Your task to perform on an android device: Go to location settings Image 0: 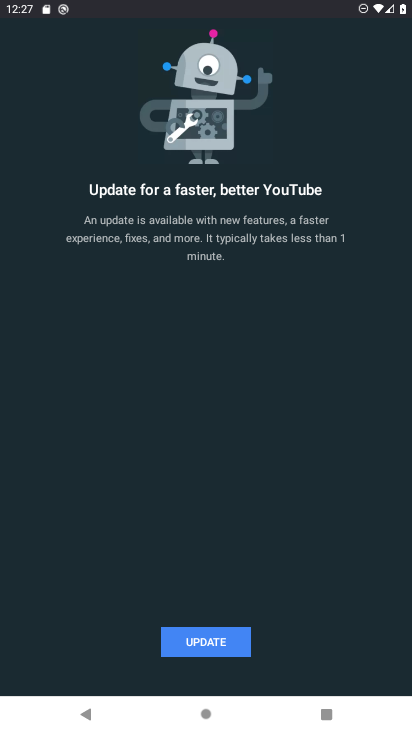
Step 0: press home button
Your task to perform on an android device: Go to location settings Image 1: 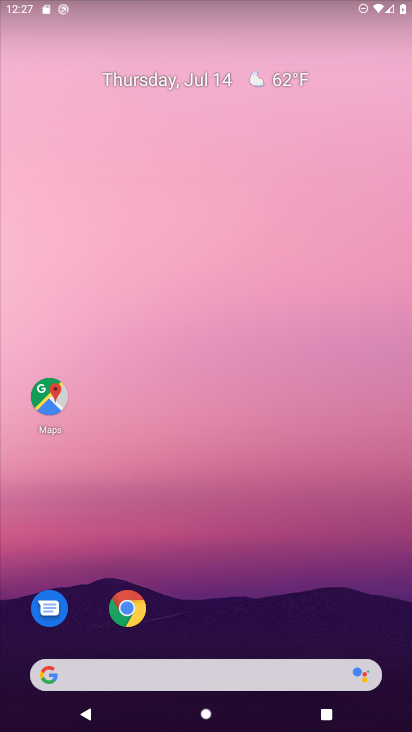
Step 1: drag from (235, 719) to (207, 87)
Your task to perform on an android device: Go to location settings Image 2: 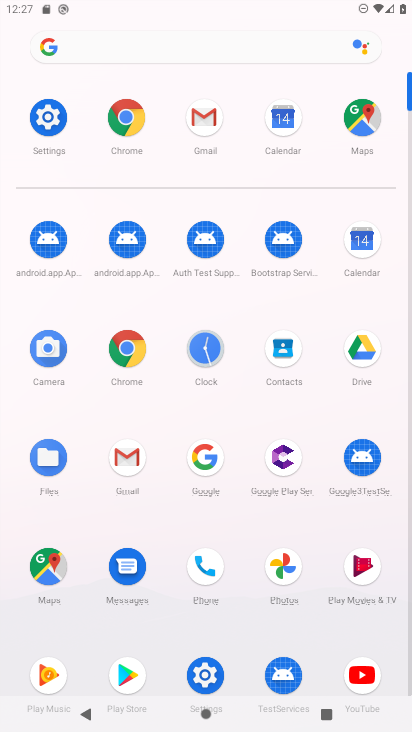
Step 2: click (54, 108)
Your task to perform on an android device: Go to location settings Image 3: 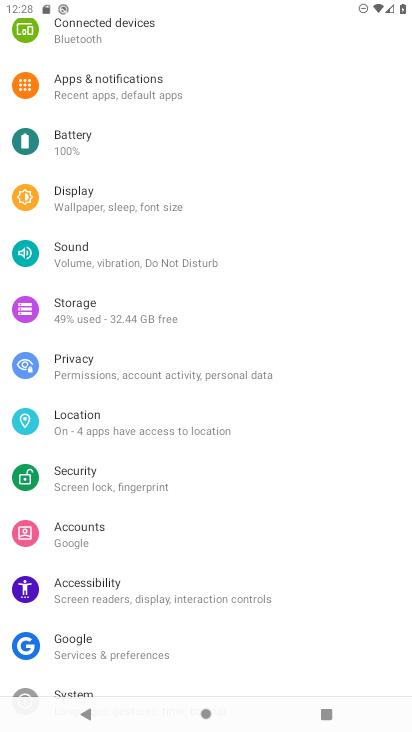
Step 3: click (85, 427)
Your task to perform on an android device: Go to location settings Image 4: 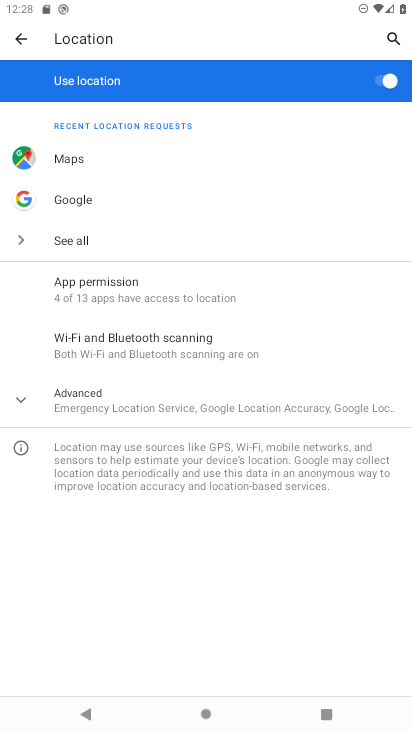
Step 4: click (113, 401)
Your task to perform on an android device: Go to location settings Image 5: 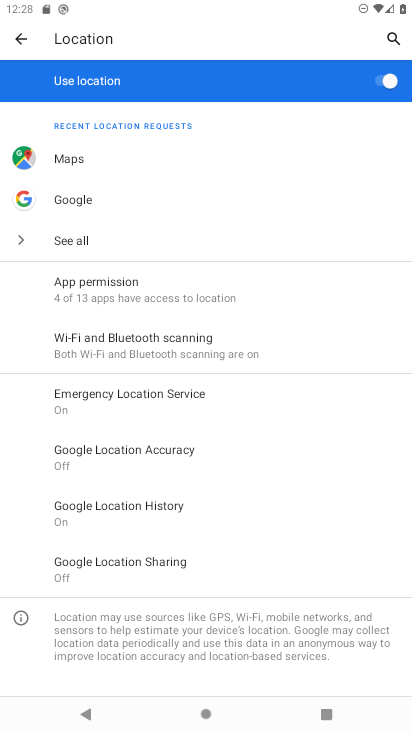
Step 5: task complete